Your task to perform on an android device: Search for usb-a on ebay.com, select the first entry, and add it to the cart. Image 0: 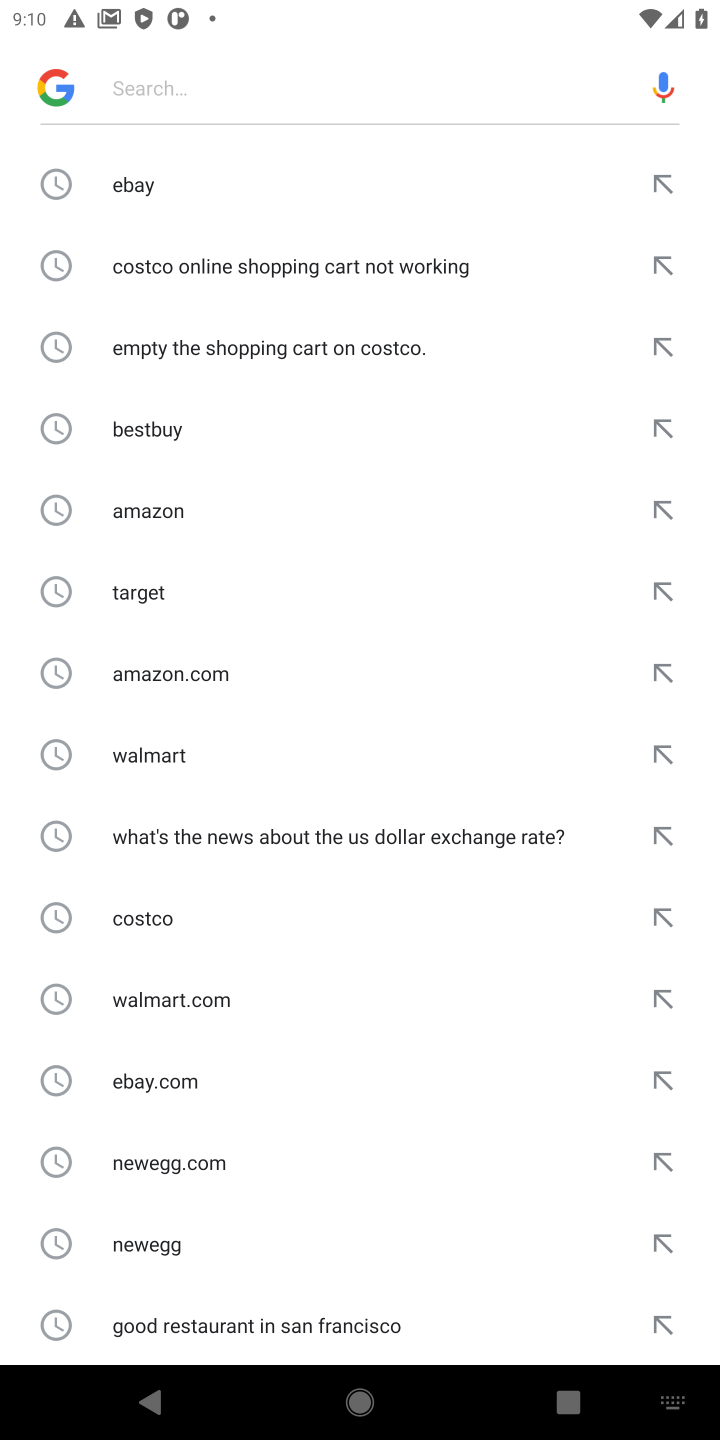
Step 0: press home button
Your task to perform on an android device: Search for usb-a on ebay.com, select the first entry, and add it to the cart. Image 1: 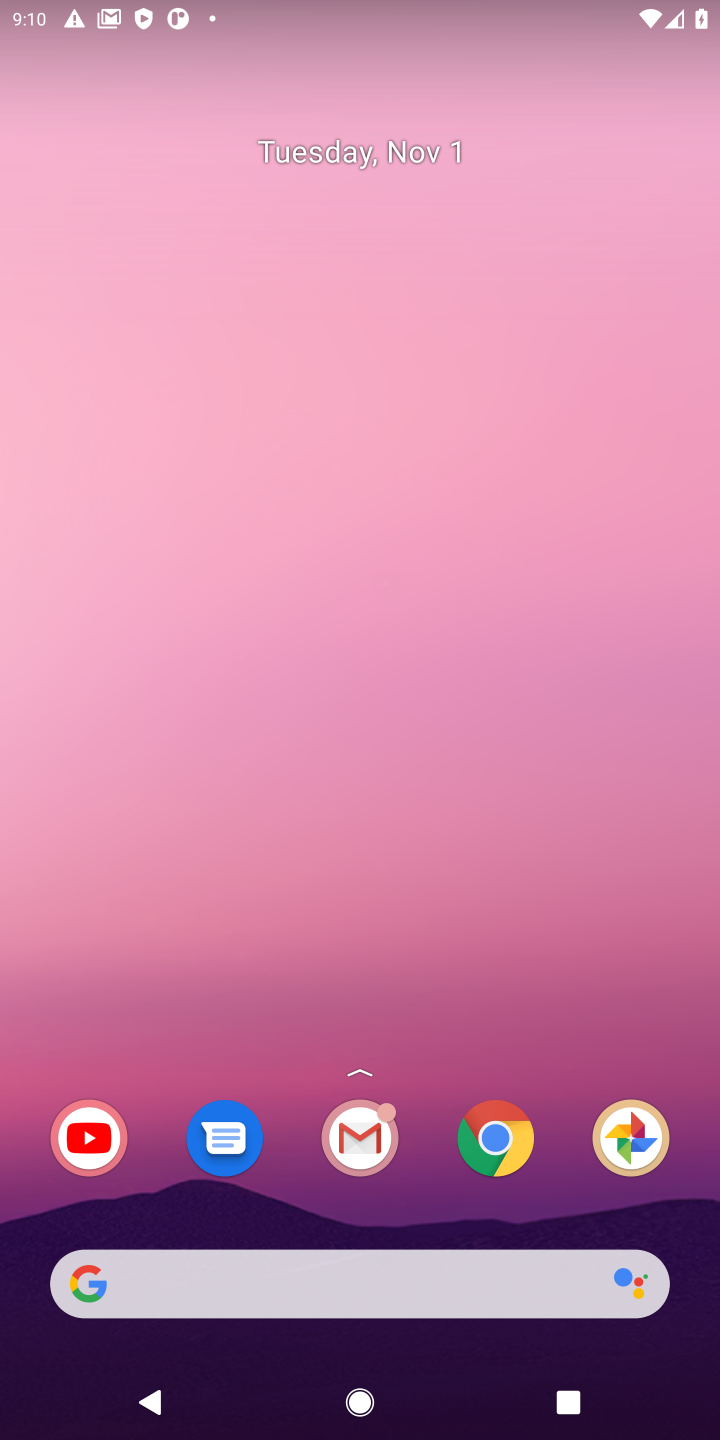
Step 1: click (488, 1158)
Your task to perform on an android device: Search for usb-a on ebay.com, select the first entry, and add it to the cart. Image 2: 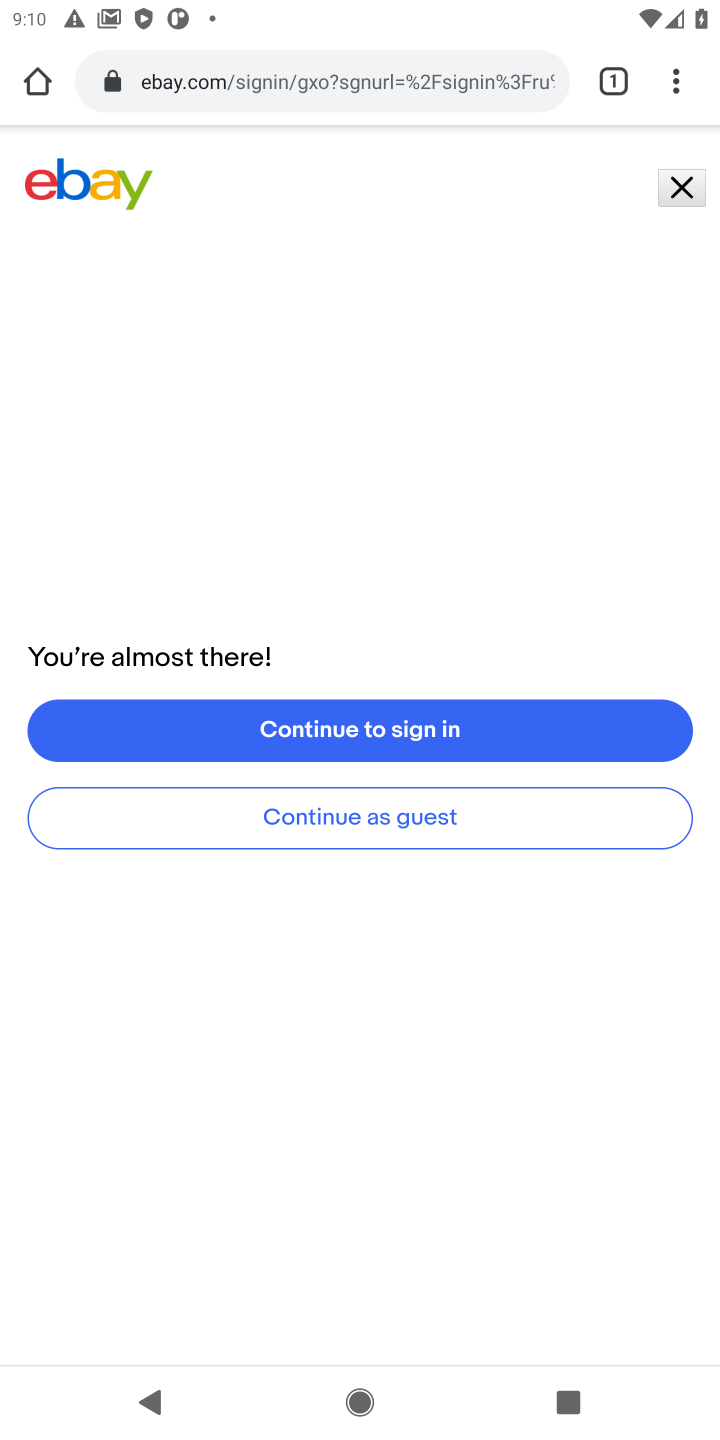
Step 2: click (259, 86)
Your task to perform on an android device: Search for usb-a on ebay.com, select the first entry, and add it to the cart. Image 3: 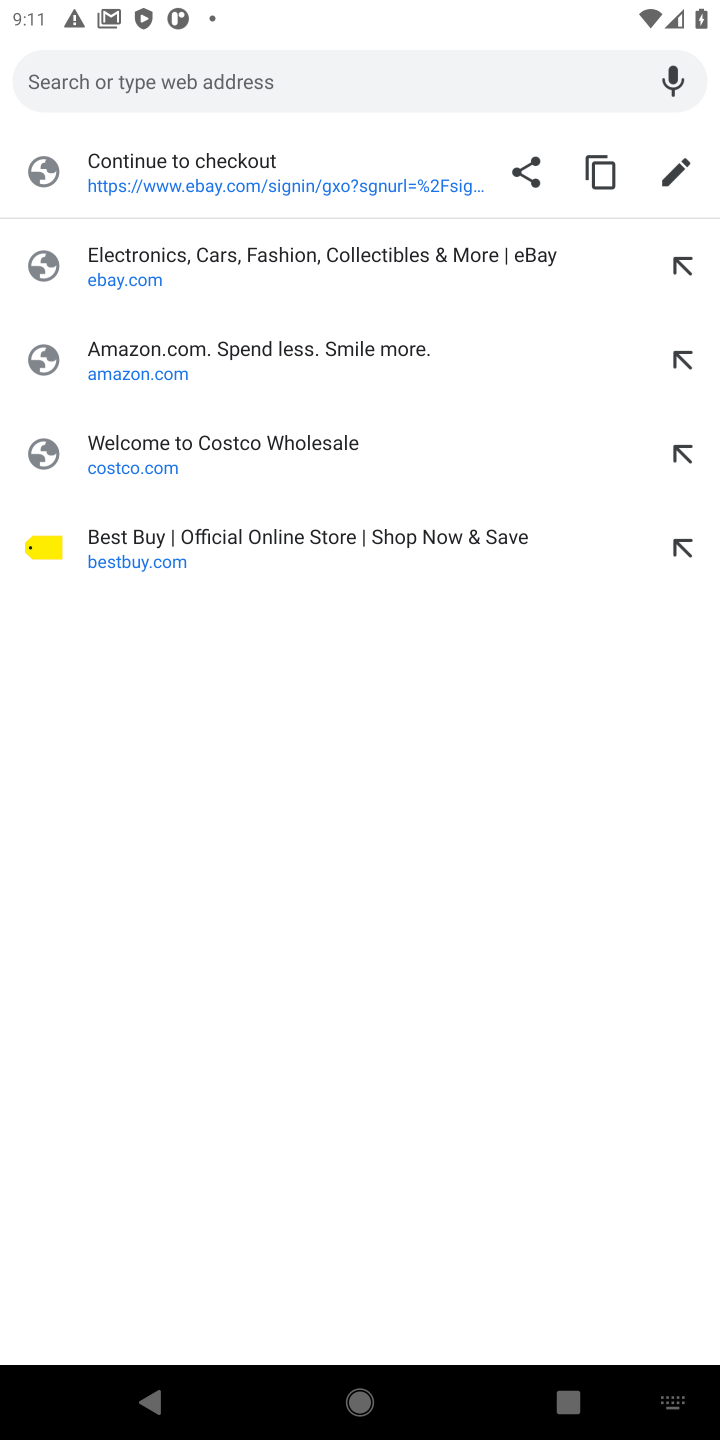
Step 3: type "ebay.com"
Your task to perform on an android device: Search for usb-a on ebay.com, select the first entry, and add it to the cart. Image 4: 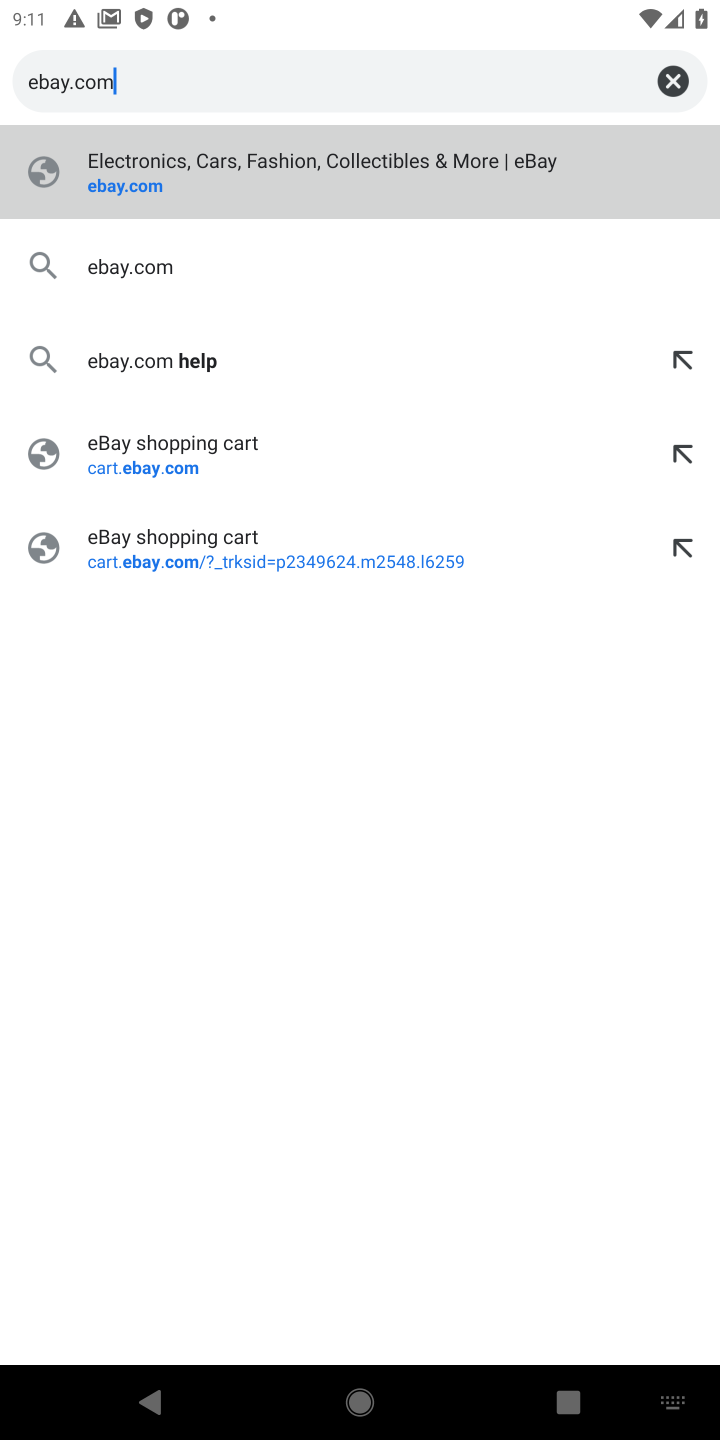
Step 4: click (120, 184)
Your task to perform on an android device: Search for usb-a on ebay.com, select the first entry, and add it to the cart. Image 5: 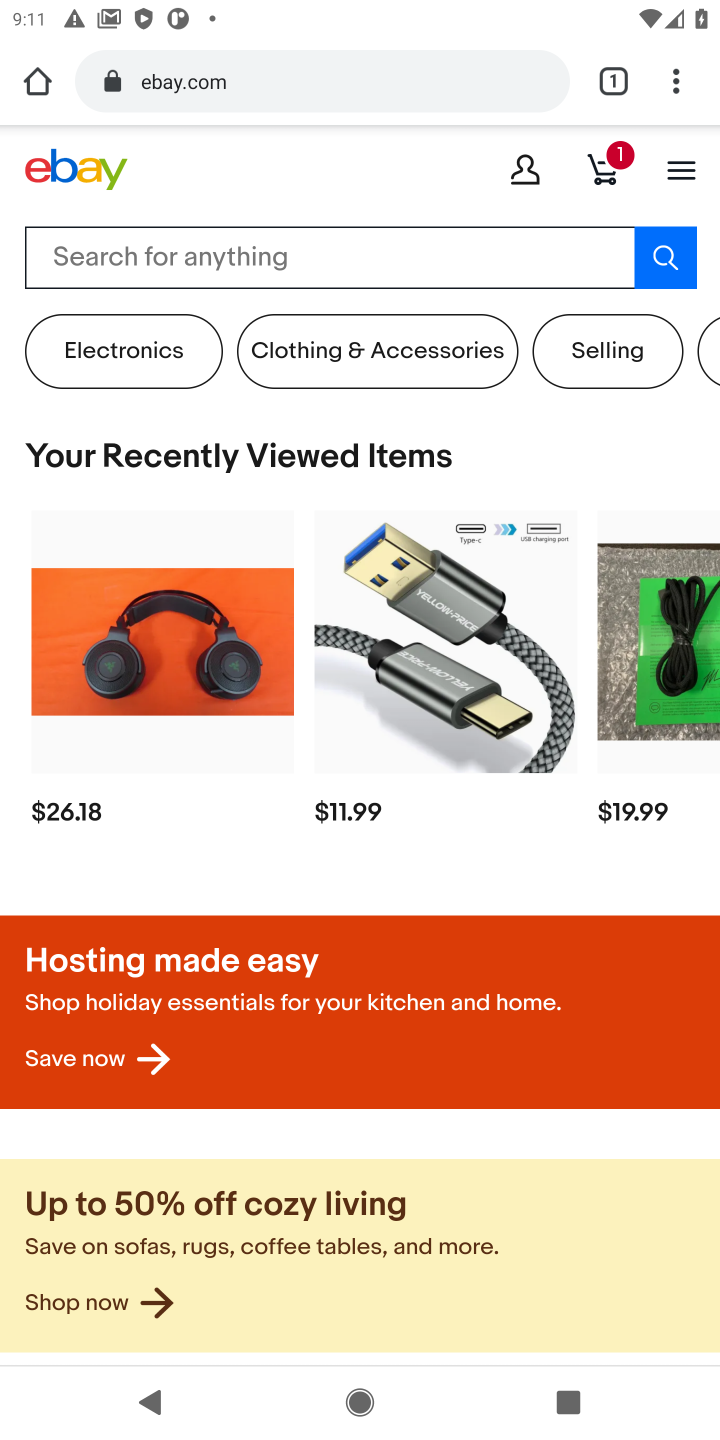
Step 5: click (240, 257)
Your task to perform on an android device: Search for usb-a on ebay.com, select the first entry, and add it to the cart. Image 6: 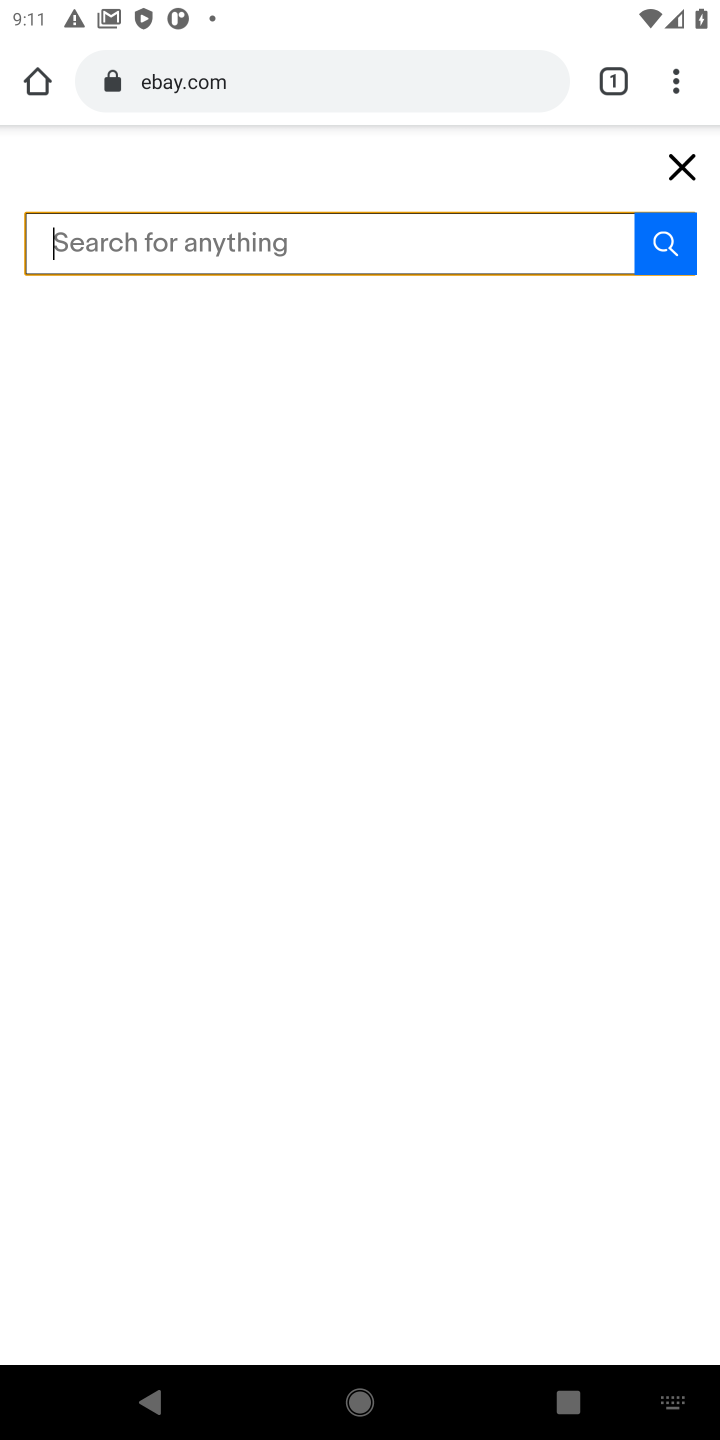
Step 6: type "usb-a "
Your task to perform on an android device: Search for usb-a on ebay.com, select the first entry, and add it to the cart. Image 7: 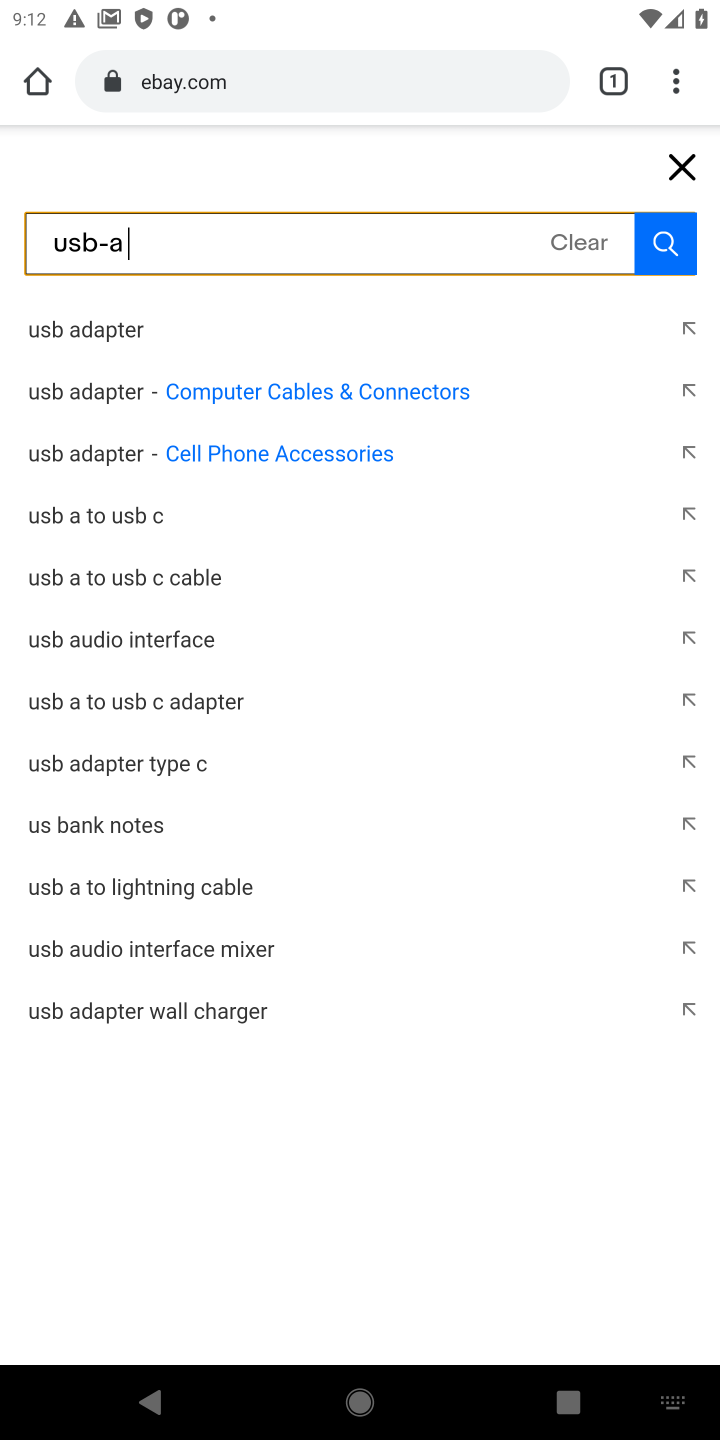
Step 7: click (659, 255)
Your task to perform on an android device: Search for usb-a on ebay.com, select the first entry, and add it to the cart. Image 8: 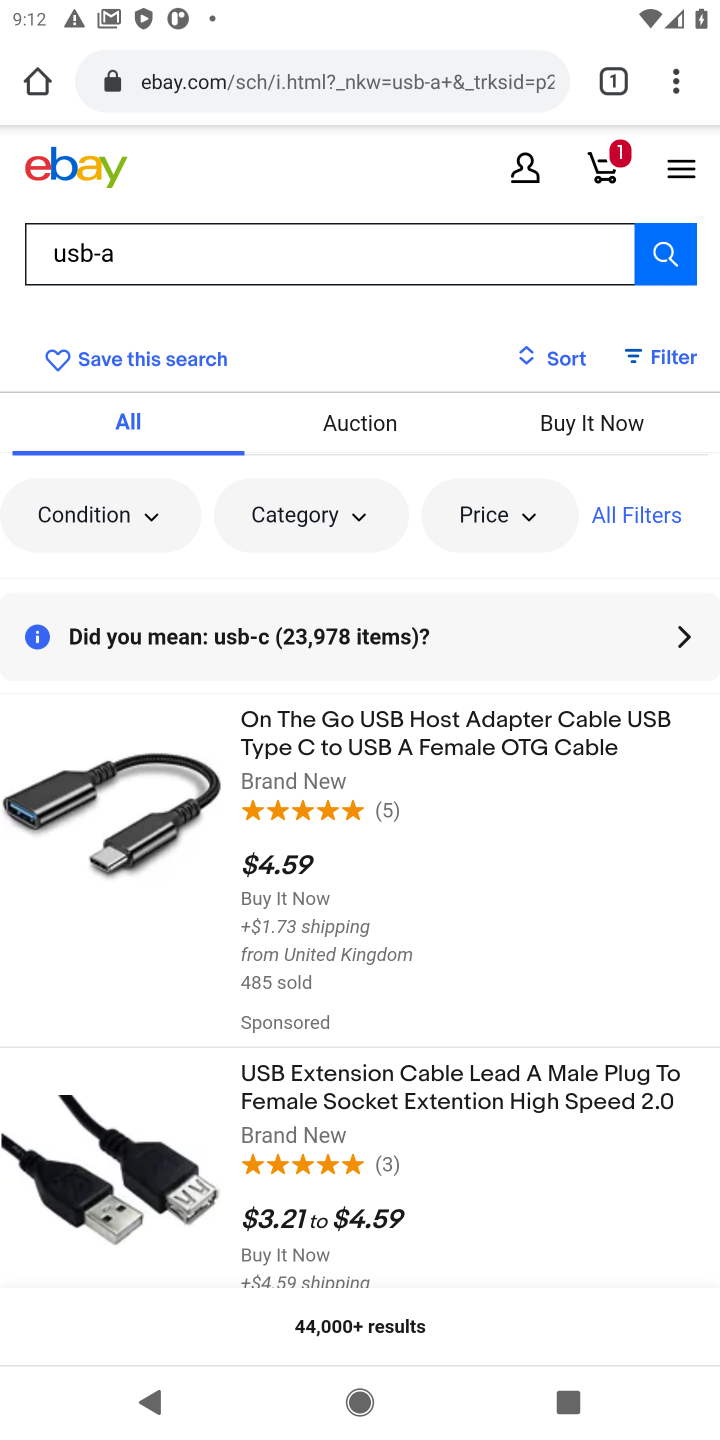
Step 8: click (207, 852)
Your task to perform on an android device: Search for usb-a on ebay.com, select the first entry, and add it to the cart. Image 9: 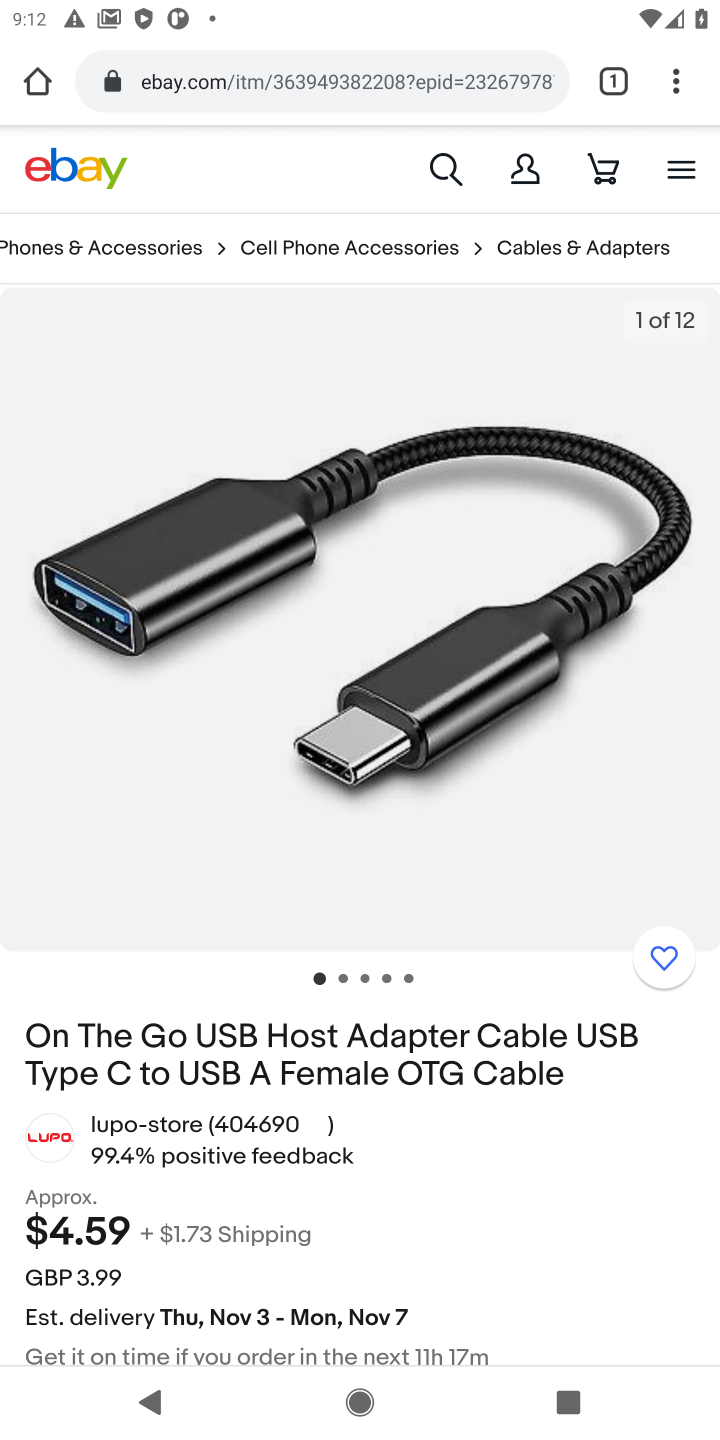
Step 9: drag from (420, 1023) to (409, 350)
Your task to perform on an android device: Search for usb-a on ebay.com, select the first entry, and add it to the cart. Image 10: 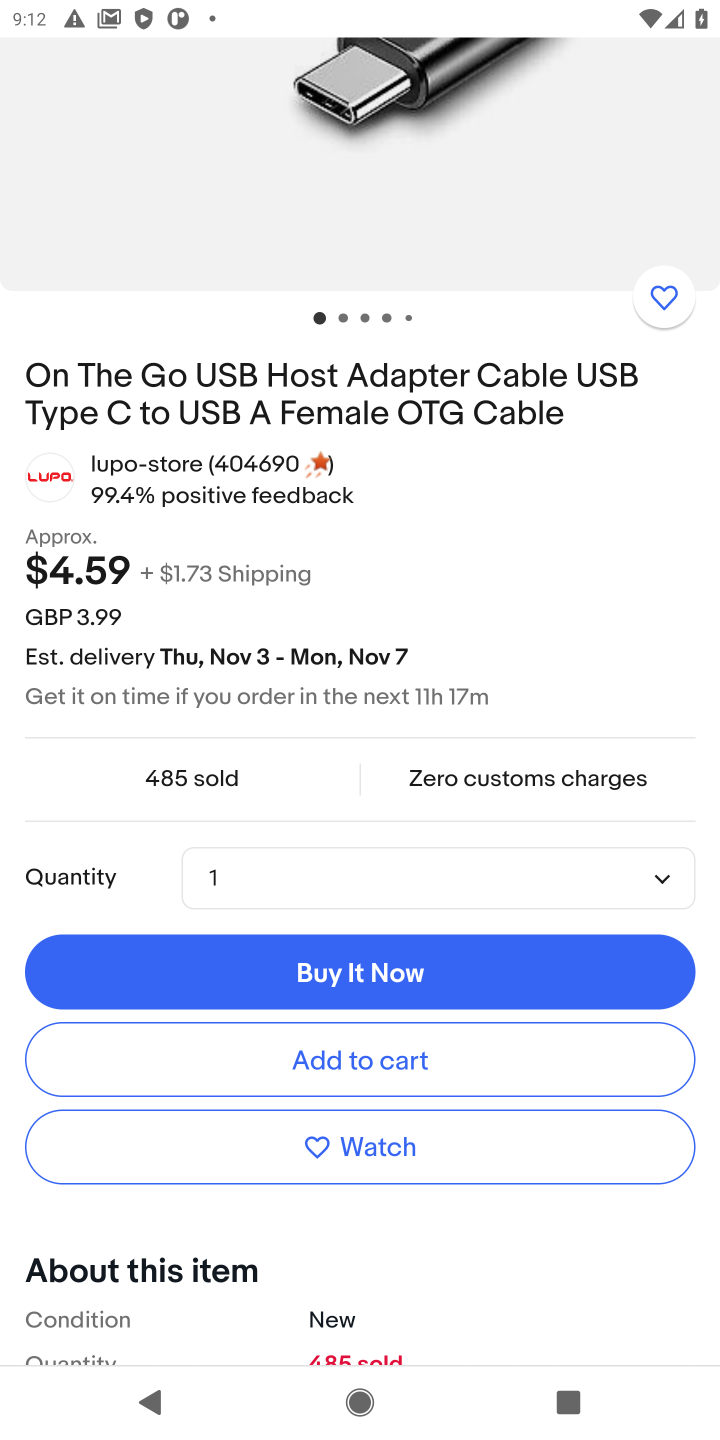
Step 10: click (330, 1057)
Your task to perform on an android device: Search for usb-a on ebay.com, select the first entry, and add it to the cart. Image 11: 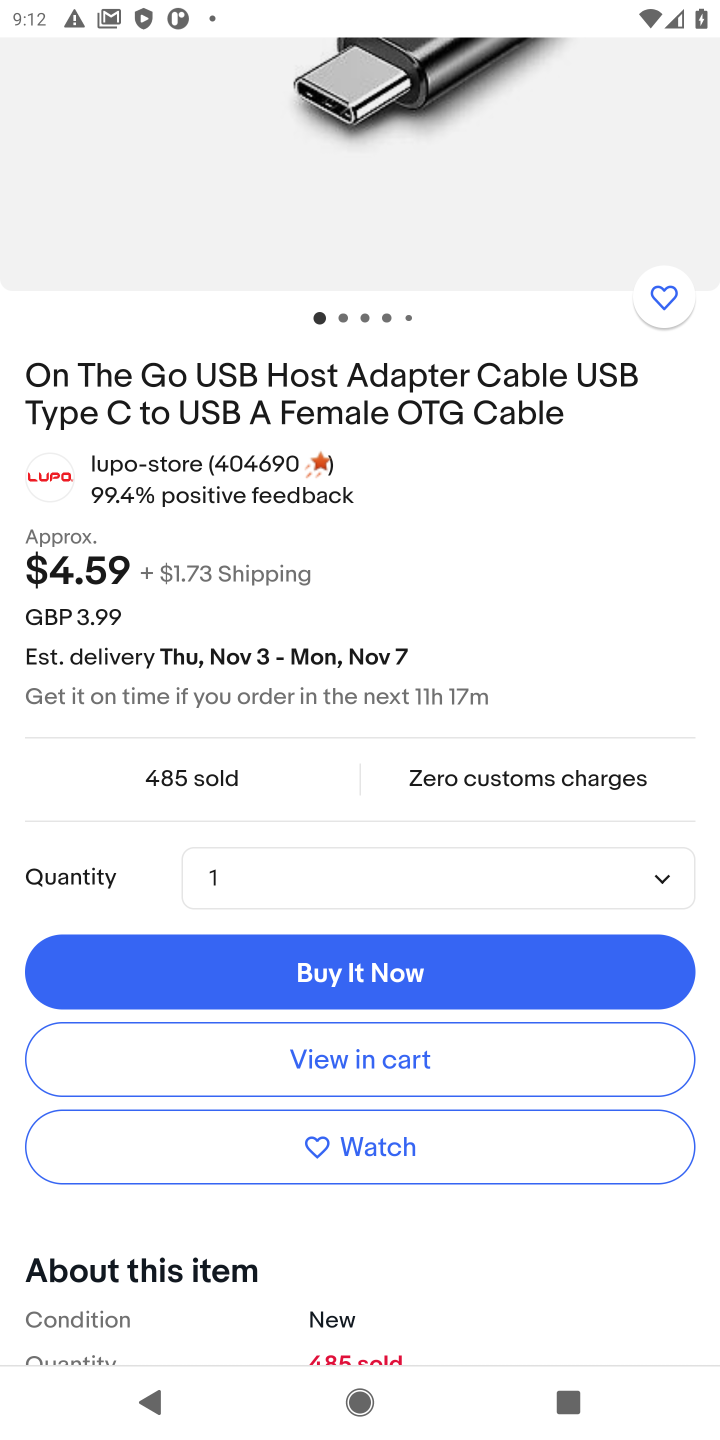
Step 11: task complete